Your task to perform on an android device: toggle improve location accuracy Image 0: 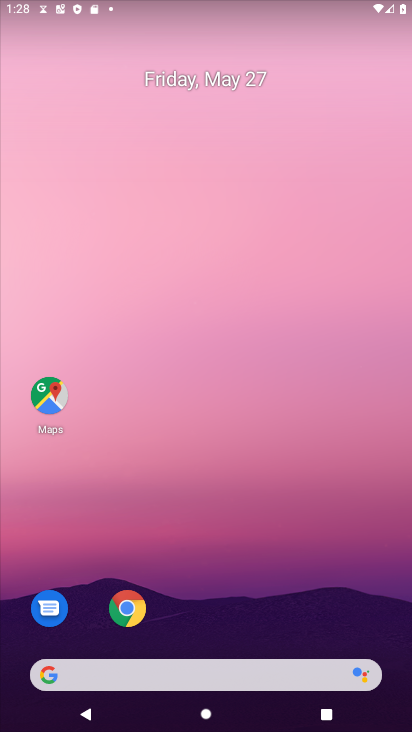
Step 0: drag from (296, 549) to (348, 11)
Your task to perform on an android device: toggle improve location accuracy Image 1: 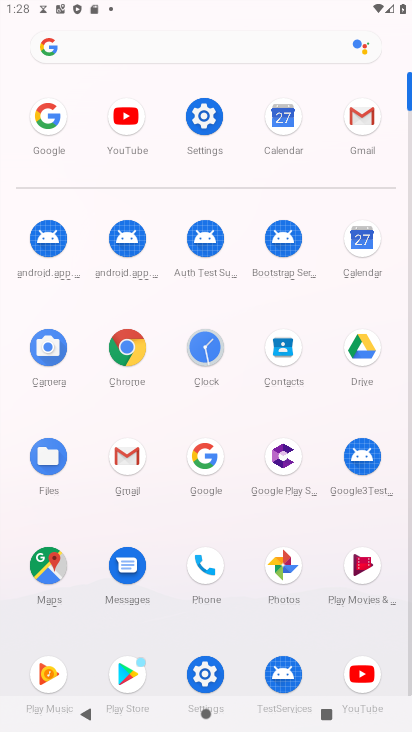
Step 1: click (206, 115)
Your task to perform on an android device: toggle improve location accuracy Image 2: 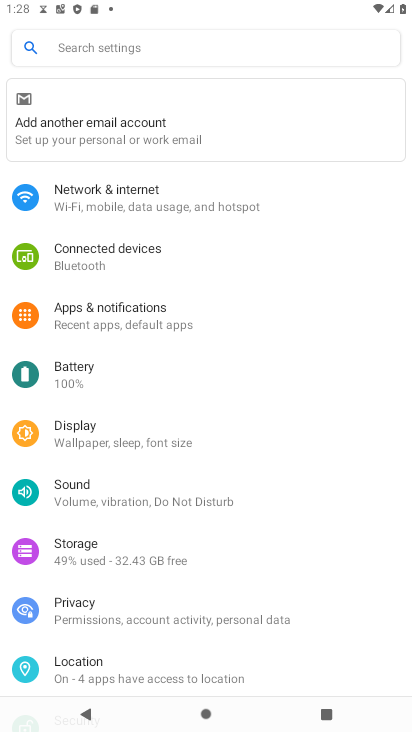
Step 2: click (73, 674)
Your task to perform on an android device: toggle improve location accuracy Image 3: 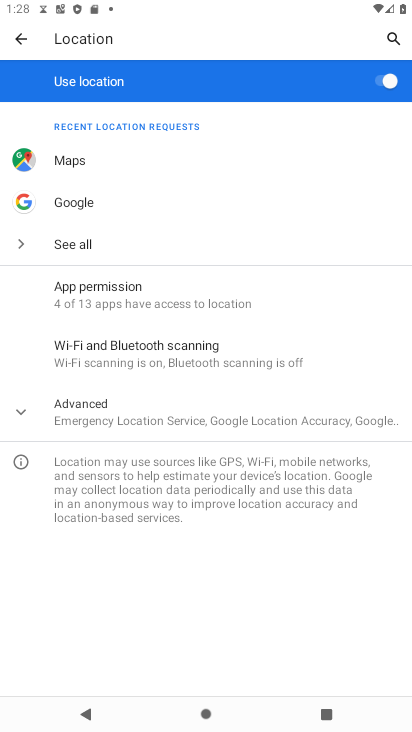
Step 3: click (162, 392)
Your task to perform on an android device: toggle improve location accuracy Image 4: 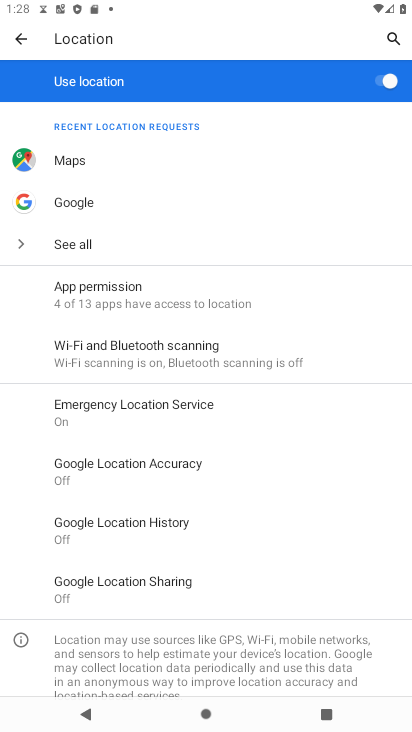
Step 4: click (162, 471)
Your task to perform on an android device: toggle improve location accuracy Image 5: 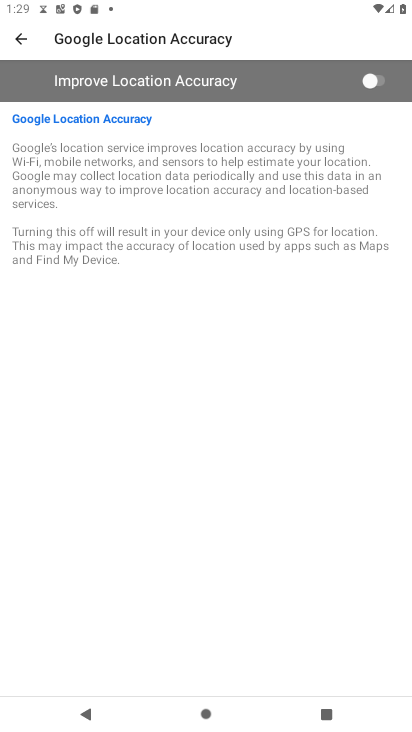
Step 5: click (366, 77)
Your task to perform on an android device: toggle improve location accuracy Image 6: 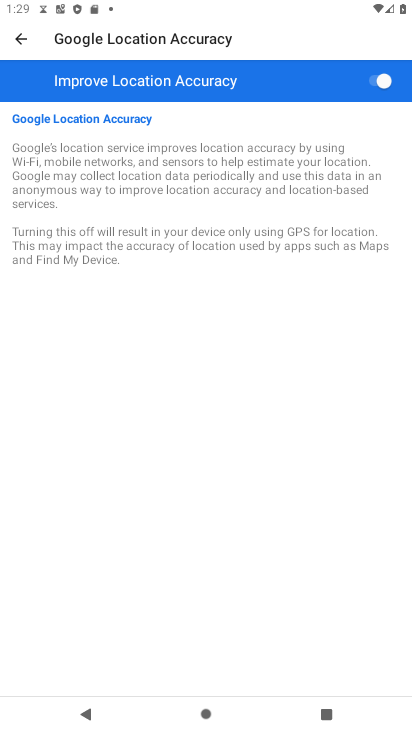
Step 6: task complete